Your task to perform on an android device: toggle pop-ups in chrome Image 0: 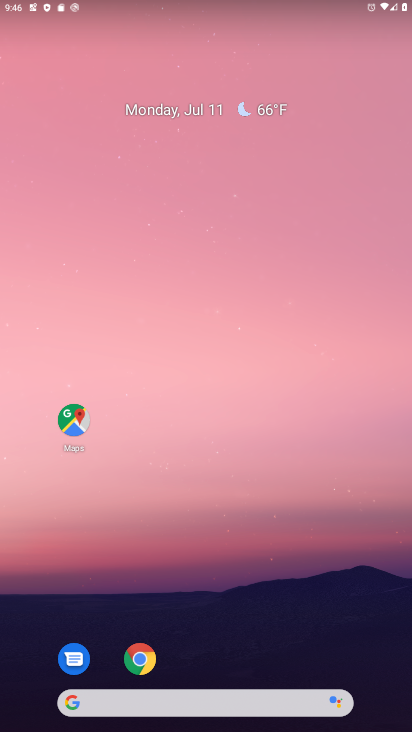
Step 0: drag from (325, 636) to (337, 155)
Your task to perform on an android device: toggle pop-ups in chrome Image 1: 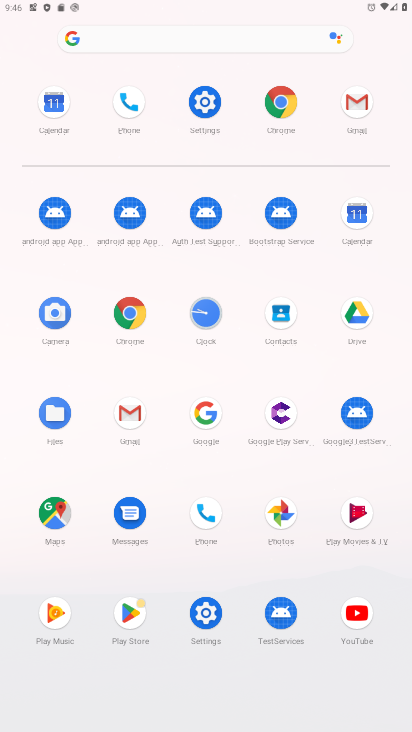
Step 1: click (126, 315)
Your task to perform on an android device: toggle pop-ups in chrome Image 2: 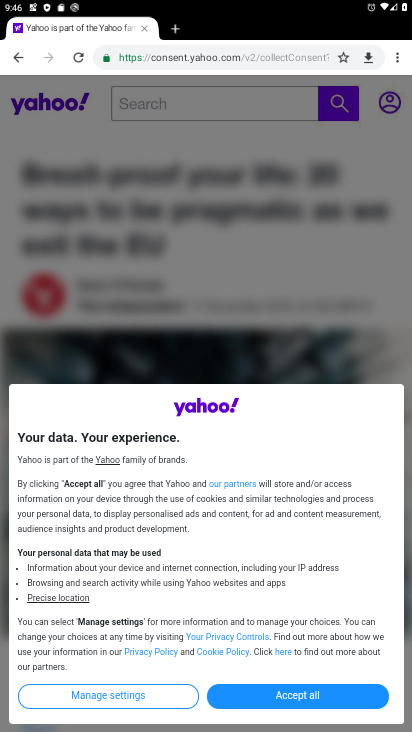
Step 2: click (398, 56)
Your task to perform on an android device: toggle pop-ups in chrome Image 3: 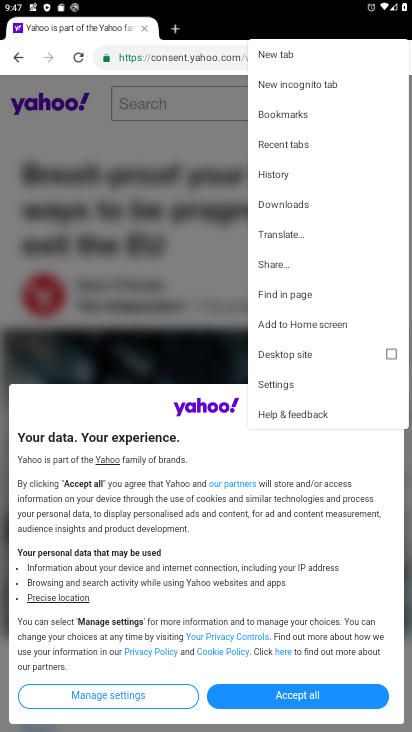
Step 3: click (304, 380)
Your task to perform on an android device: toggle pop-ups in chrome Image 4: 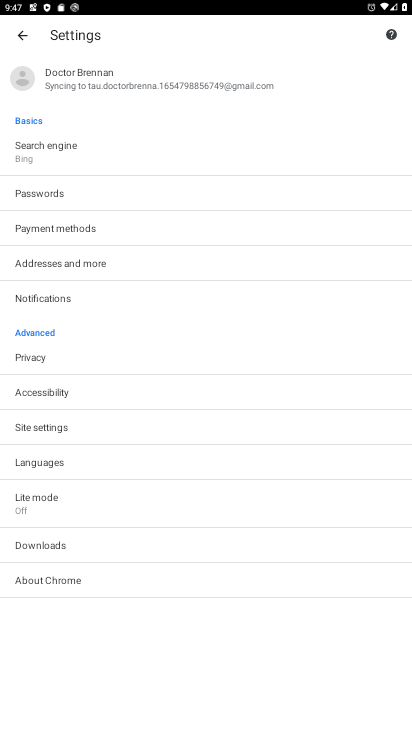
Step 4: click (176, 429)
Your task to perform on an android device: toggle pop-ups in chrome Image 5: 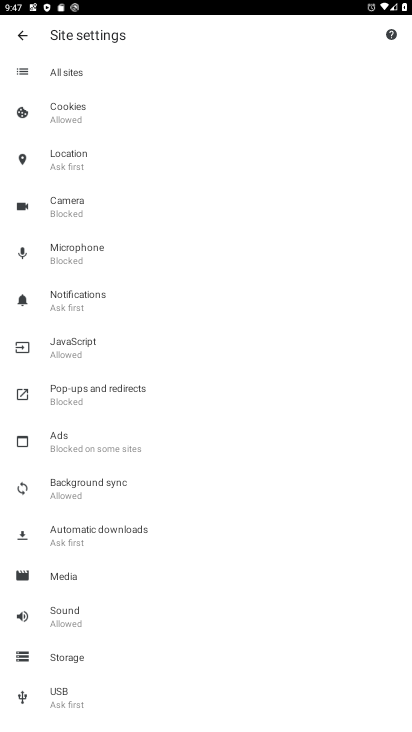
Step 5: click (143, 395)
Your task to perform on an android device: toggle pop-ups in chrome Image 6: 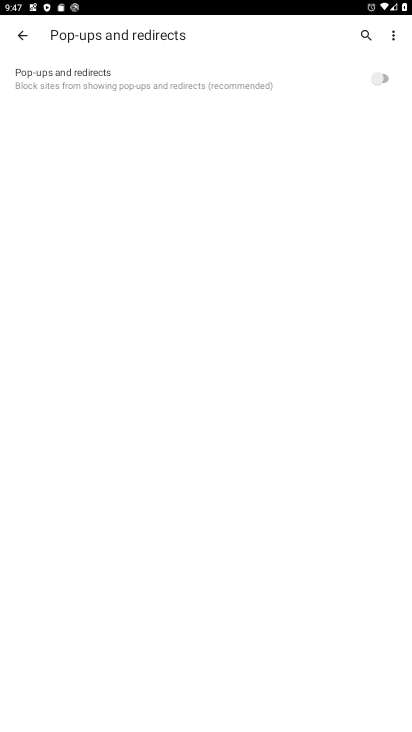
Step 6: click (375, 80)
Your task to perform on an android device: toggle pop-ups in chrome Image 7: 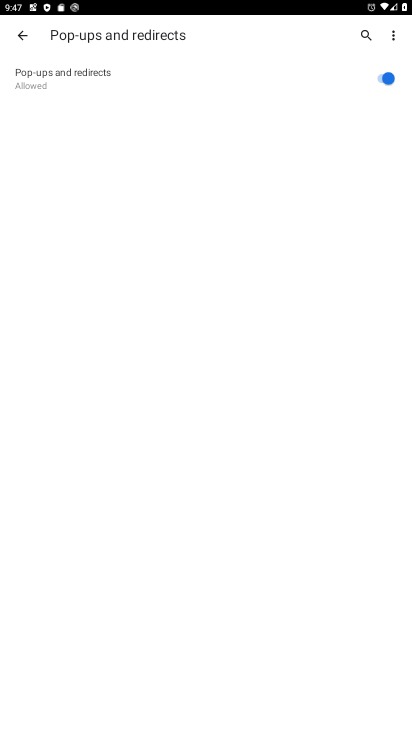
Step 7: task complete